Your task to perform on an android device: open app "Mercado Libre" Image 0: 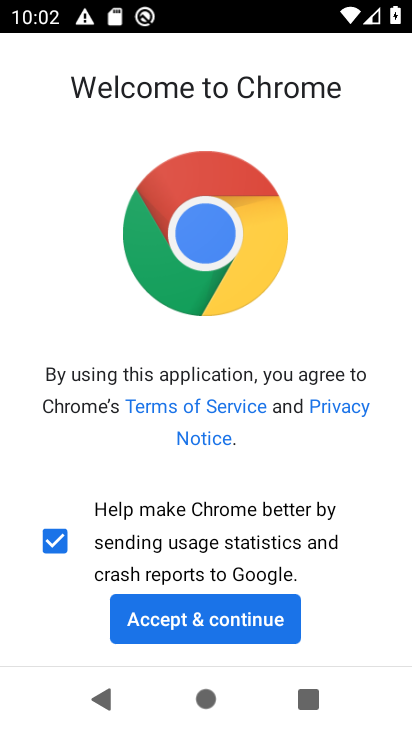
Step 0: press home button
Your task to perform on an android device: open app "Mercado Libre" Image 1: 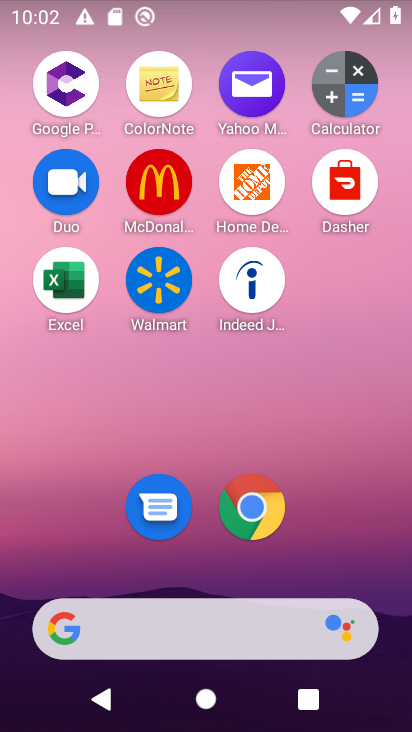
Step 1: drag from (397, 653) to (356, 214)
Your task to perform on an android device: open app "Mercado Libre" Image 2: 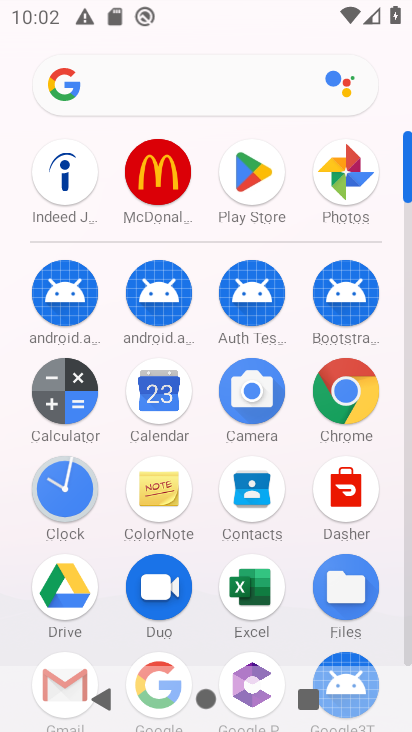
Step 2: click (408, 651)
Your task to perform on an android device: open app "Mercado Libre" Image 3: 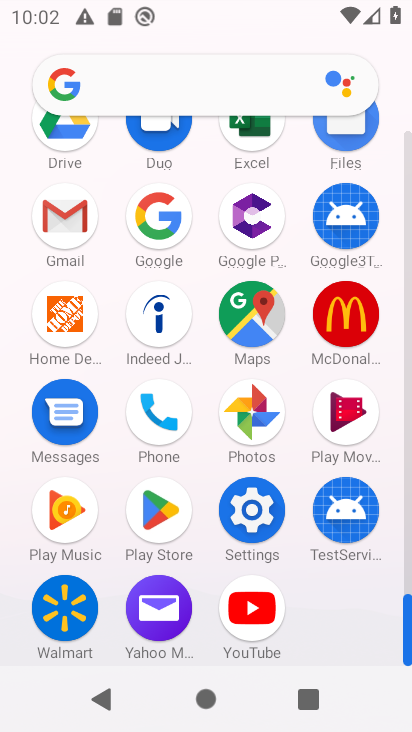
Step 3: click (161, 508)
Your task to perform on an android device: open app "Mercado Libre" Image 4: 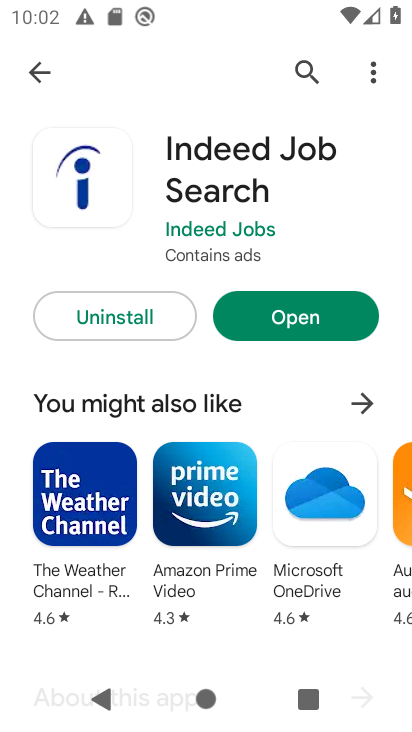
Step 4: click (301, 65)
Your task to perform on an android device: open app "Mercado Libre" Image 5: 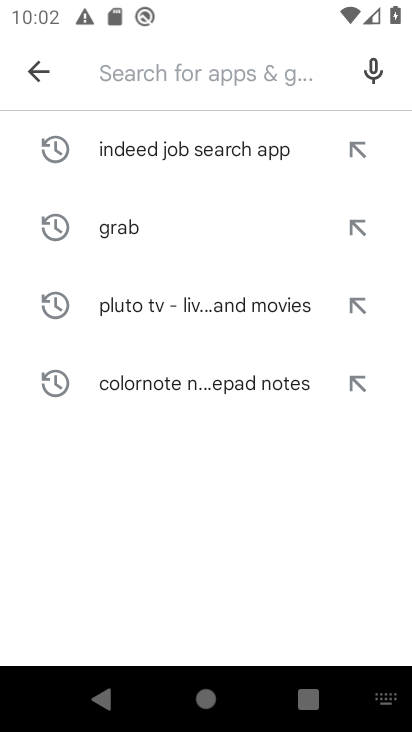
Step 5: type "Mercado Libre"
Your task to perform on an android device: open app "Mercado Libre" Image 6: 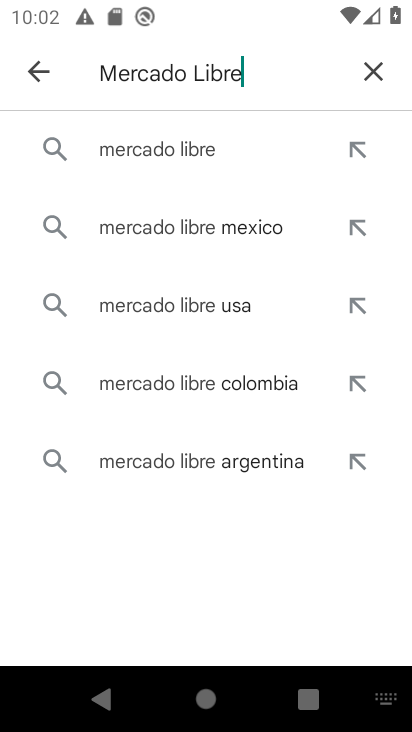
Step 6: click (140, 151)
Your task to perform on an android device: open app "Mercado Libre" Image 7: 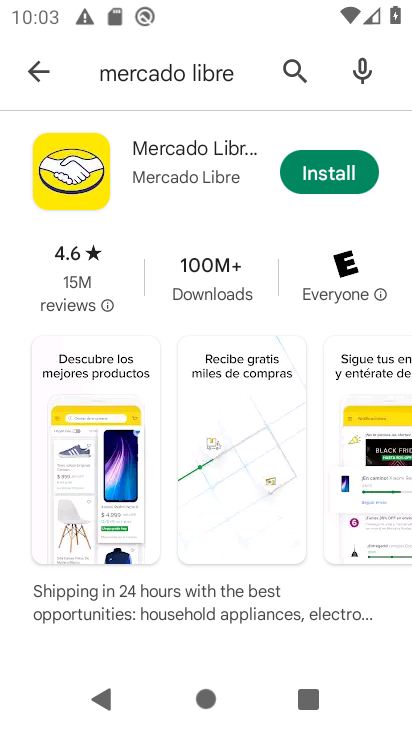
Step 7: task complete